Your task to perform on an android device: What's the weather going to be tomorrow? Image 0: 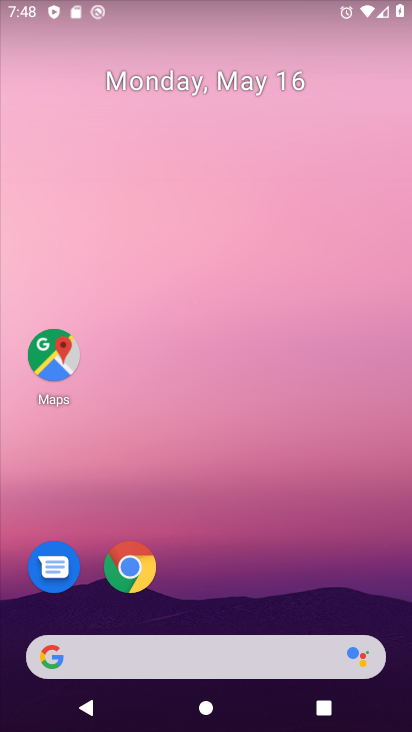
Step 0: drag from (230, 301) to (230, 253)
Your task to perform on an android device: What's the weather going to be tomorrow? Image 1: 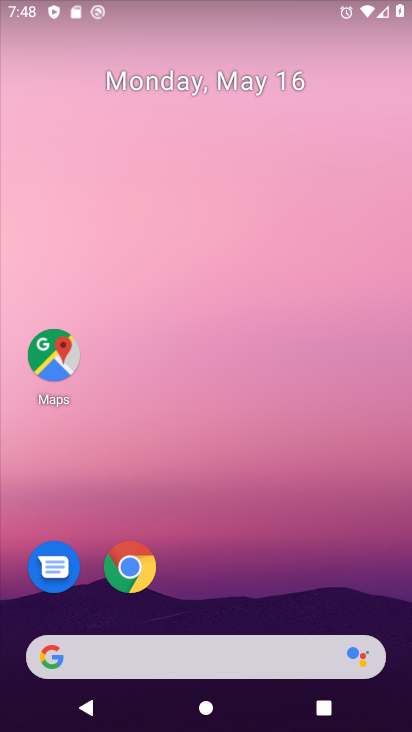
Step 1: drag from (175, 630) to (196, 251)
Your task to perform on an android device: What's the weather going to be tomorrow? Image 2: 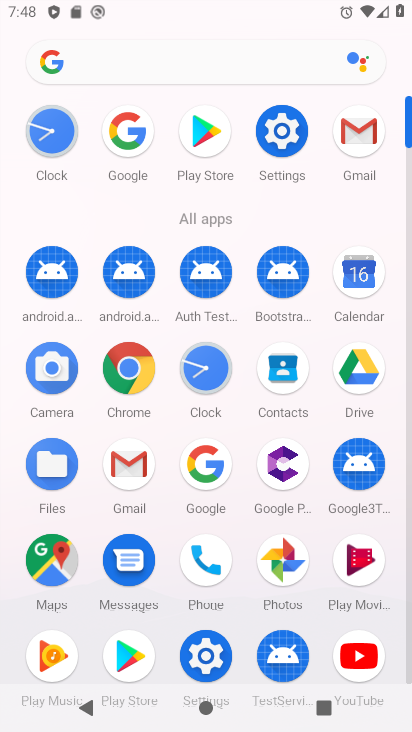
Step 2: click (193, 472)
Your task to perform on an android device: What's the weather going to be tomorrow? Image 3: 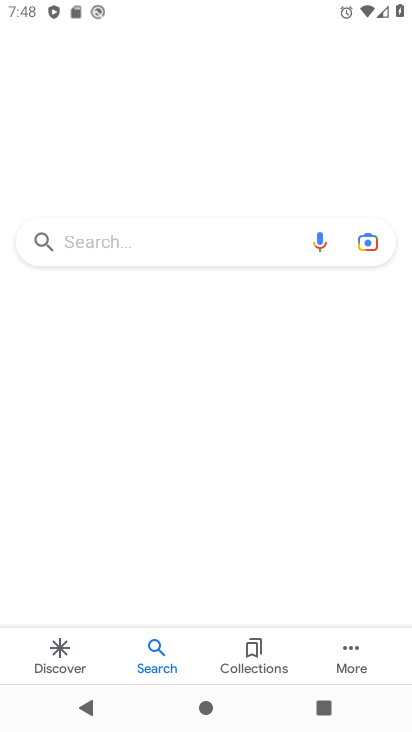
Step 3: click (122, 238)
Your task to perform on an android device: What's the weather going to be tomorrow? Image 4: 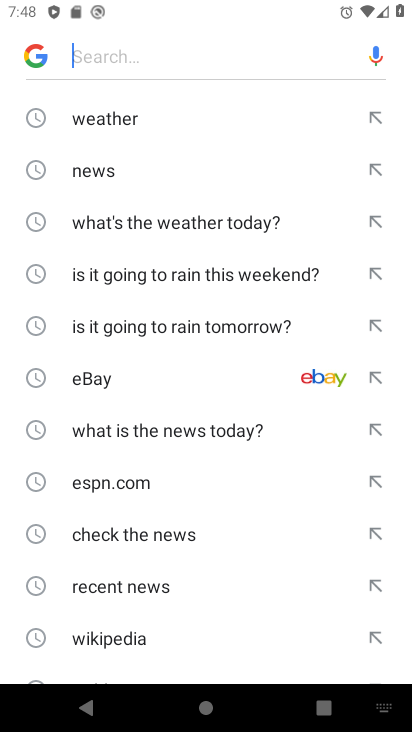
Step 4: drag from (168, 560) to (201, 304)
Your task to perform on an android device: What's the weather going to be tomorrow? Image 5: 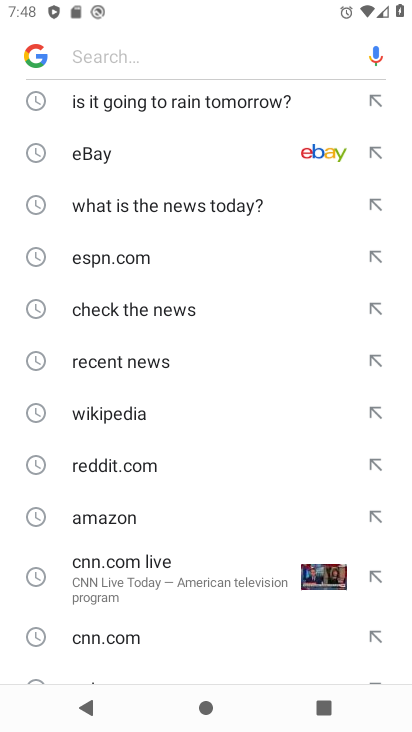
Step 5: drag from (206, 643) to (204, 427)
Your task to perform on an android device: What's the weather going to be tomorrow? Image 6: 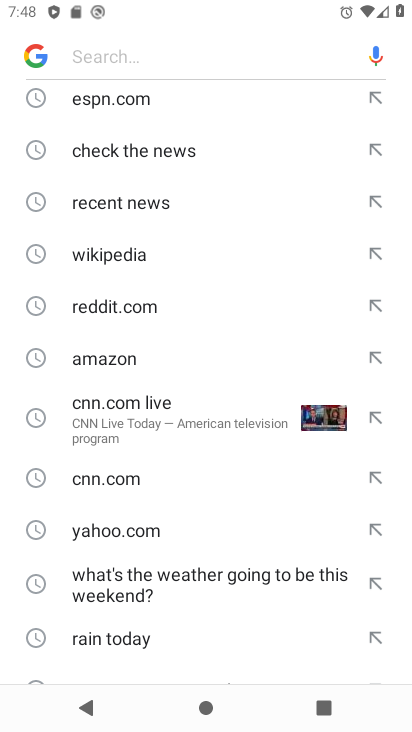
Step 6: click (146, 581)
Your task to perform on an android device: What's the weather going to be tomorrow? Image 7: 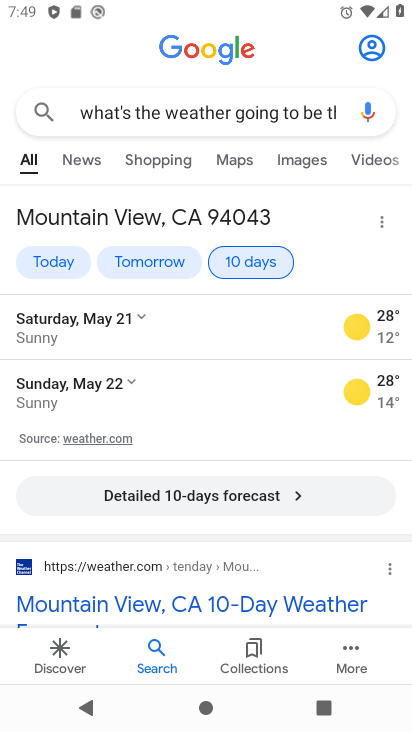
Step 7: click (157, 263)
Your task to perform on an android device: What's the weather going to be tomorrow? Image 8: 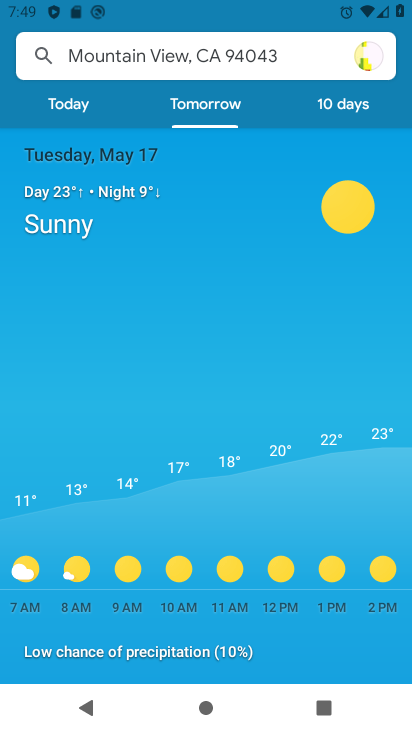
Step 8: task complete